Your task to perform on an android device: Open Chrome and go to the settings page Image 0: 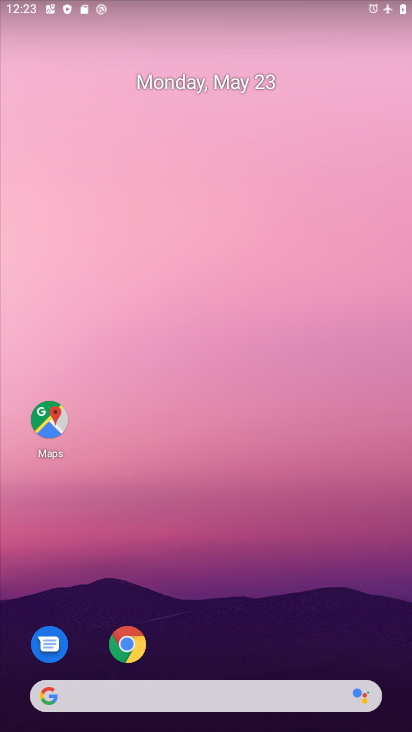
Step 0: drag from (337, 637) to (287, 67)
Your task to perform on an android device: Open Chrome and go to the settings page Image 1: 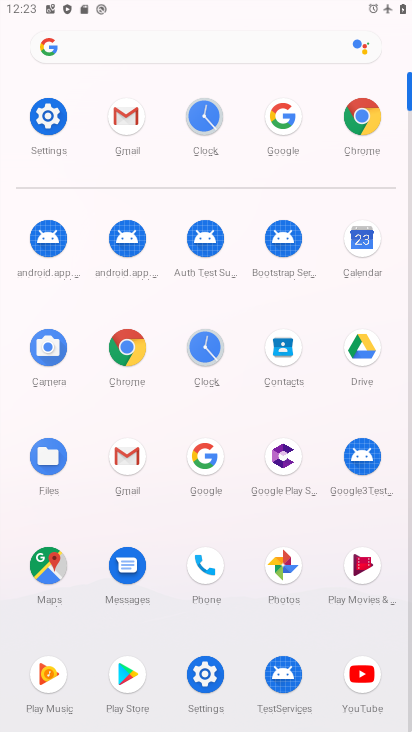
Step 1: click (379, 128)
Your task to perform on an android device: Open Chrome and go to the settings page Image 2: 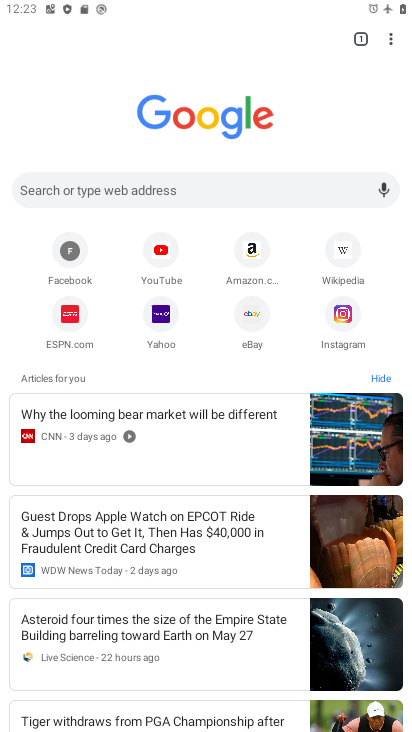
Step 2: click (402, 34)
Your task to perform on an android device: Open Chrome and go to the settings page Image 3: 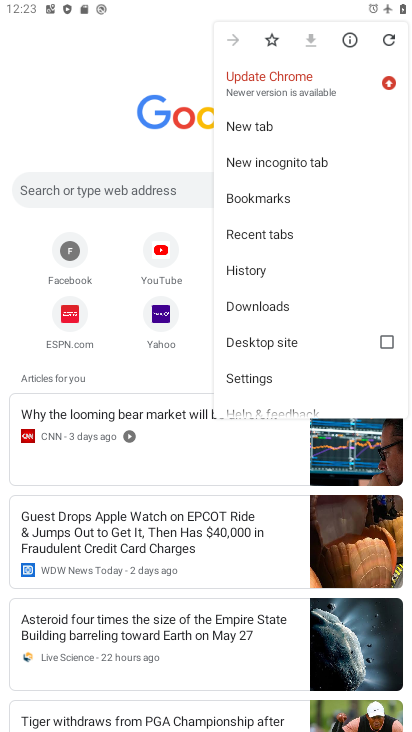
Step 3: click (279, 368)
Your task to perform on an android device: Open Chrome and go to the settings page Image 4: 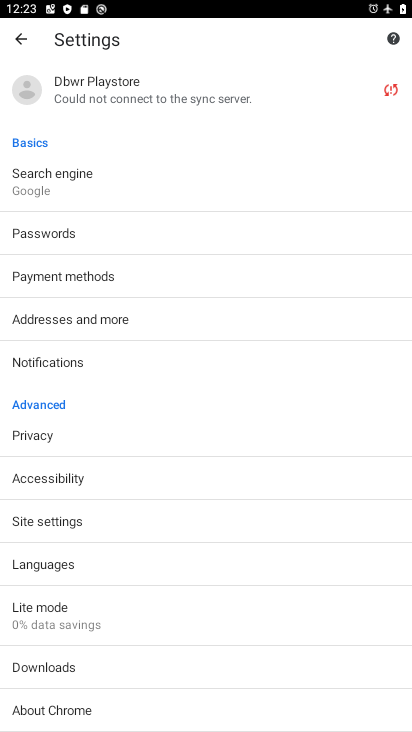
Step 4: task complete